Your task to perform on an android device: Turn on the flashlight Image 0: 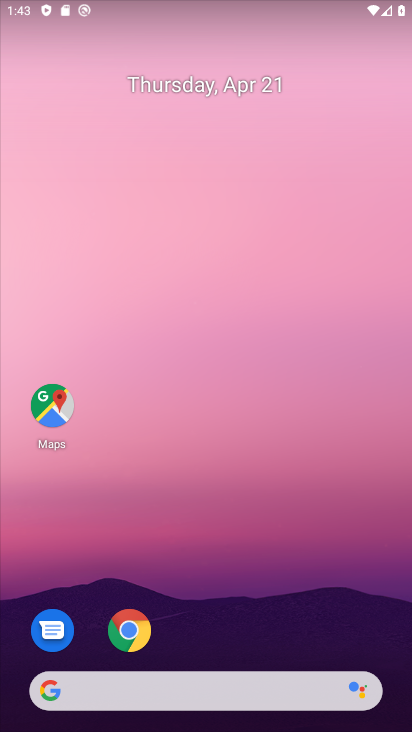
Step 0: press home button
Your task to perform on an android device: Turn on the flashlight Image 1: 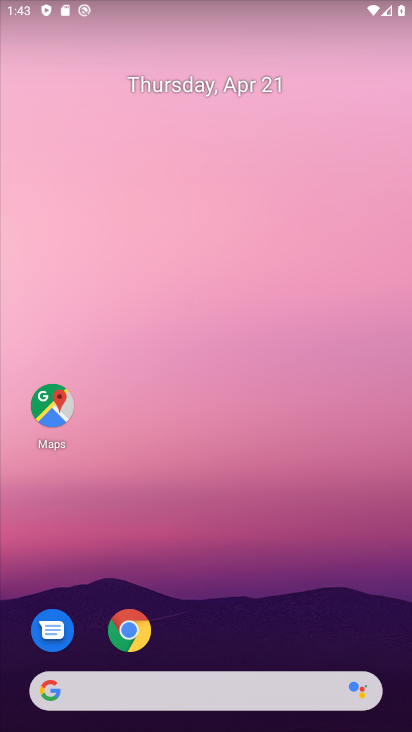
Step 1: task complete